Your task to perform on an android device: allow cookies in the chrome app Image 0: 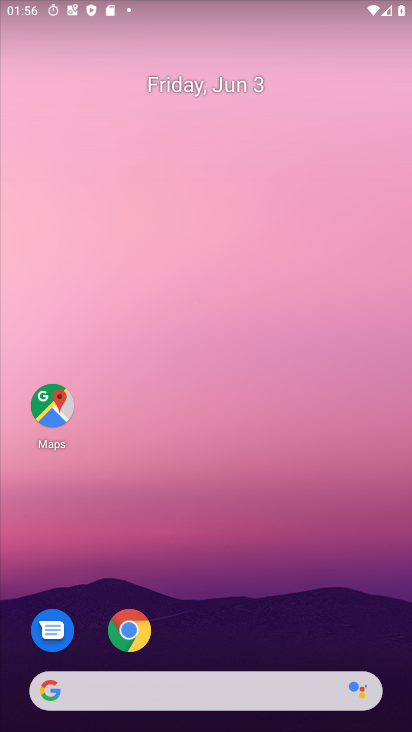
Step 0: drag from (296, 640) to (220, 259)
Your task to perform on an android device: allow cookies in the chrome app Image 1: 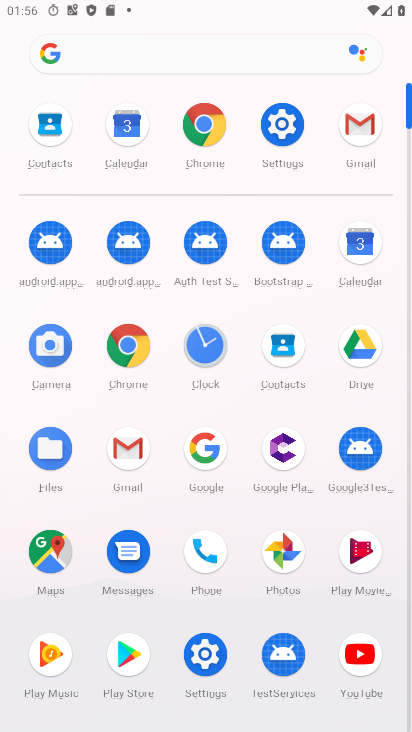
Step 1: click (210, 117)
Your task to perform on an android device: allow cookies in the chrome app Image 2: 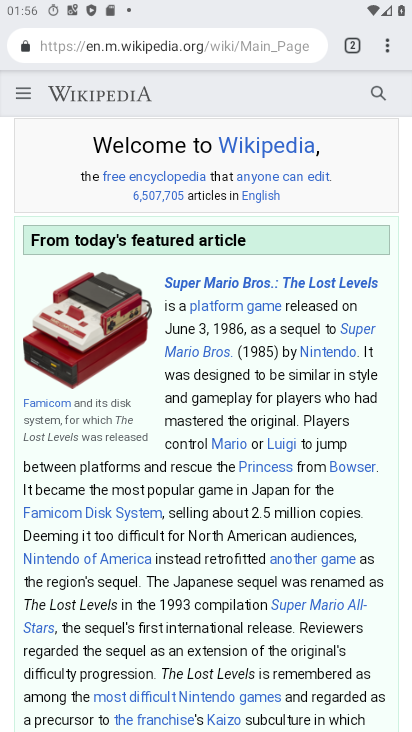
Step 2: click (390, 54)
Your task to perform on an android device: allow cookies in the chrome app Image 3: 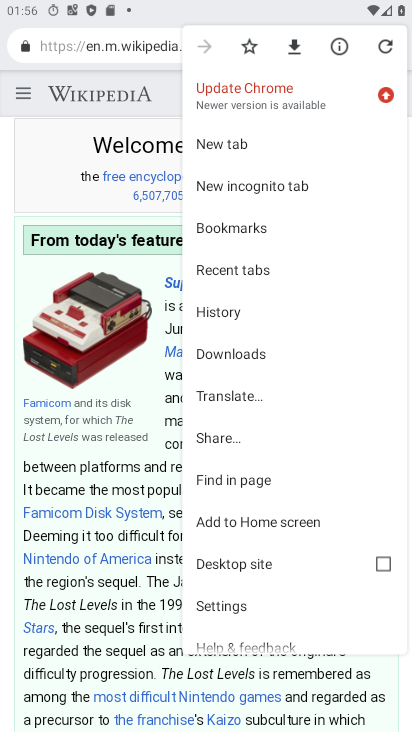
Step 3: click (282, 604)
Your task to perform on an android device: allow cookies in the chrome app Image 4: 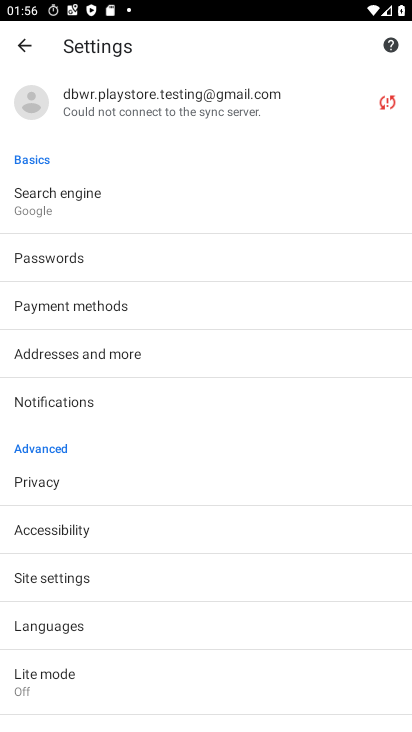
Step 4: drag from (224, 673) to (167, 267)
Your task to perform on an android device: allow cookies in the chrome app Image 5: 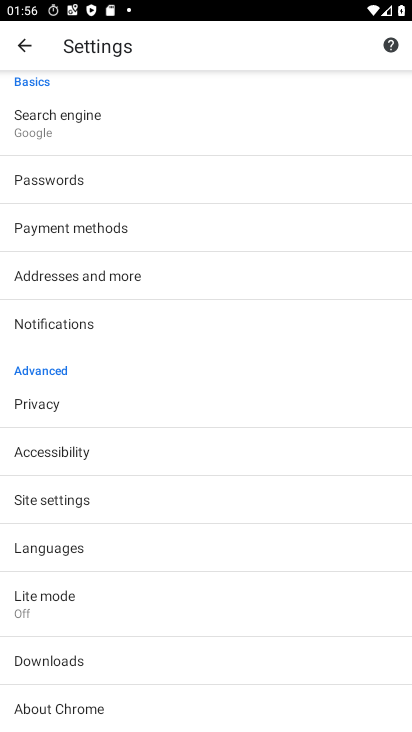
Step 5: click (176, 495)
Your task to perform on an android device: allow cookies in the chrome app Image 6: 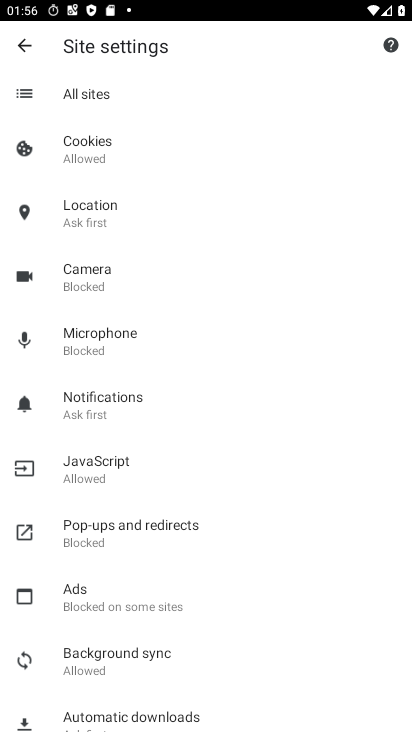
Step 6: click (99, 142)
Your task to perform on an android device: allow cookies in the chrome app Image 7: 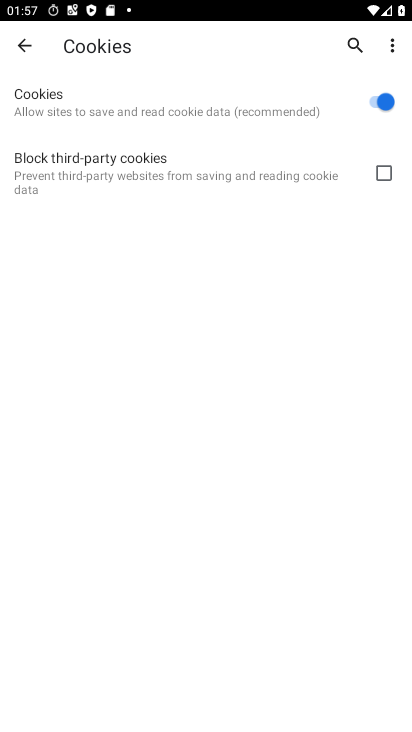
Step 7: task complete